Your task to perform on an android device: turn on showing notifications on the lock screen Image 0: 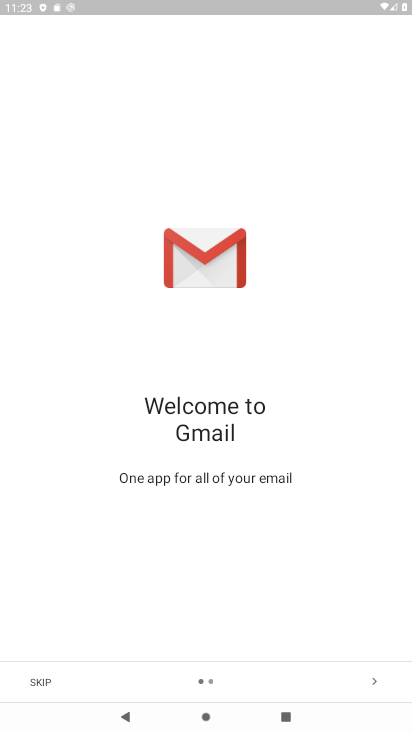
Step 0: press home button
Your task to perform on an android device: turn on showing notifications on the lock screen Image 1: 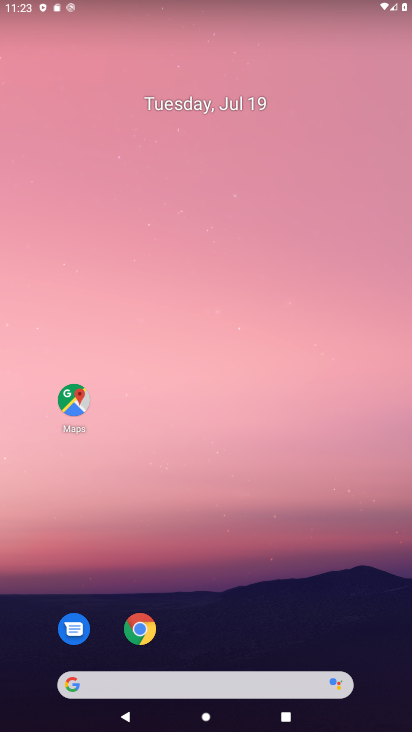
Step 1: drag from (361, 620) to (351, 123)
Your task to perform on an android device: turn on showing notifications on the lock screen Image 2: 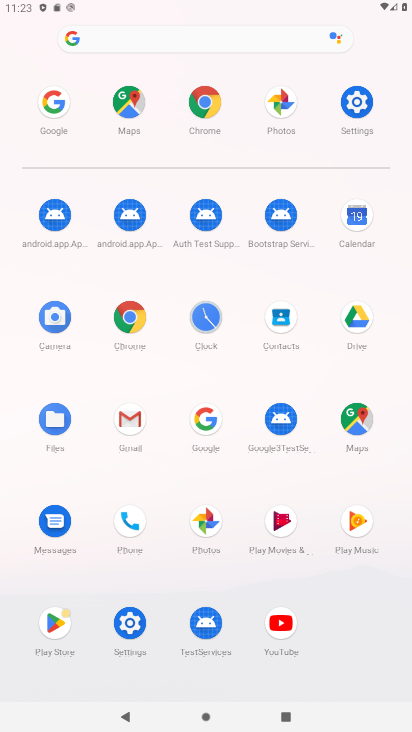
Step 2: click (364, 110)
Your task to perform on an android device: turn on showing notifications on the lock screen Image 3: 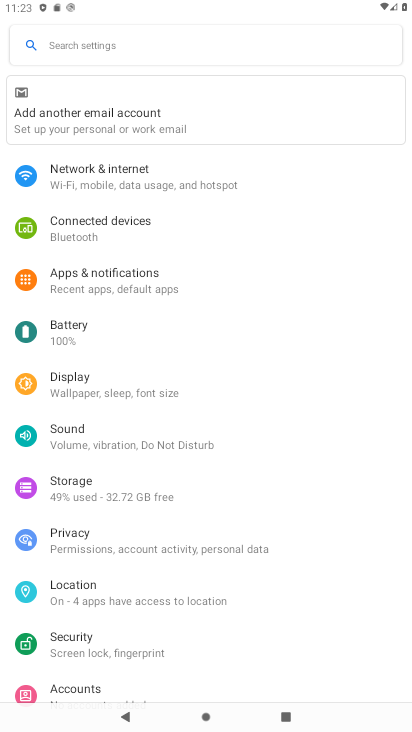
Step 3: drag from (310, 429) to (321, 326)
Your task to perform on an android device: turn on showing notifications on the lock screen Image 4: 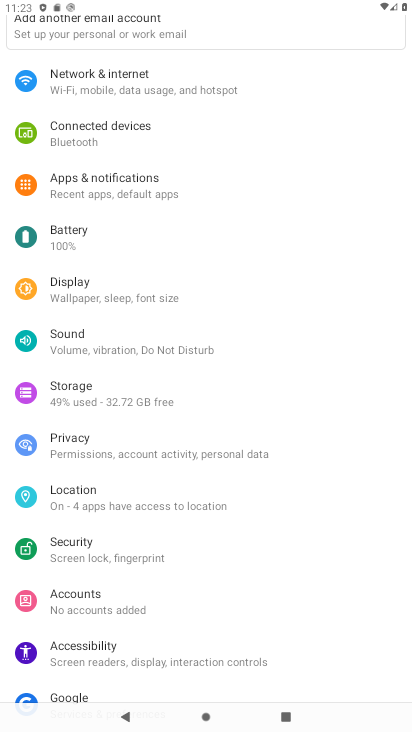
Step 4: drag from (338, 449) to (348, 335)
Your task to perform on an android device: turn on showing notifications on the lock screen Image 5: 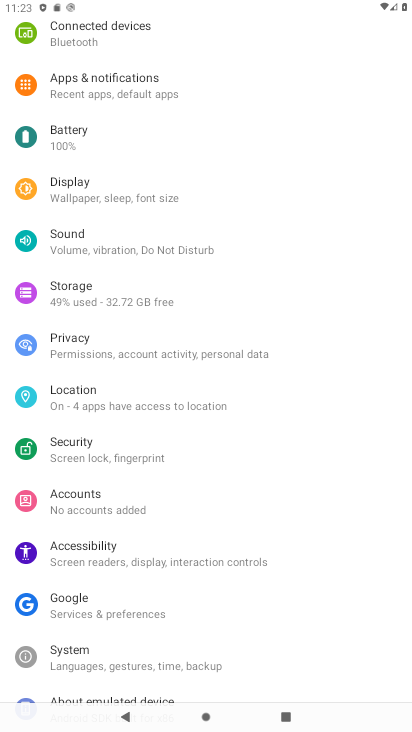
Step 5: drag from (357, 479) to (353, 325)
Your task to perform on an android device: turn on showing notifications on the lock screen Image 6: 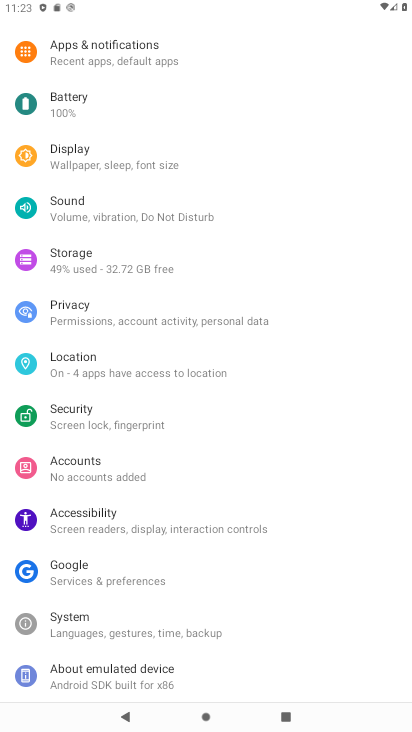
Step 6: drag from (354, 262) to (355, 364)
Your task to perform on an android device: turn on showing notifications on the lock screen Image 7: 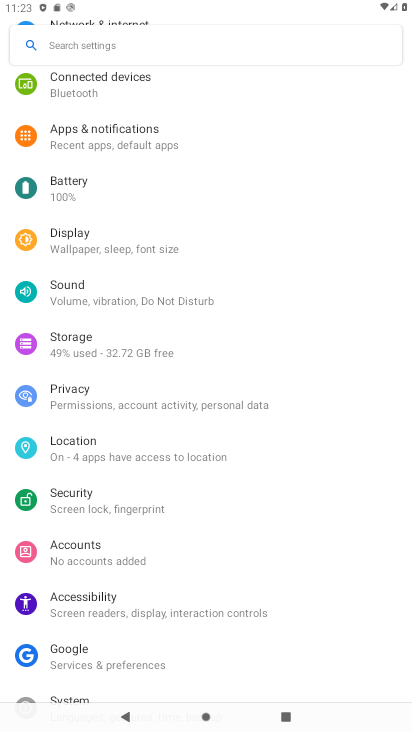
Step 7: drag from (353, 242) to (353, 357)
Your task to perform on an android device: turn on showing notifications on the lock screen Image 8: 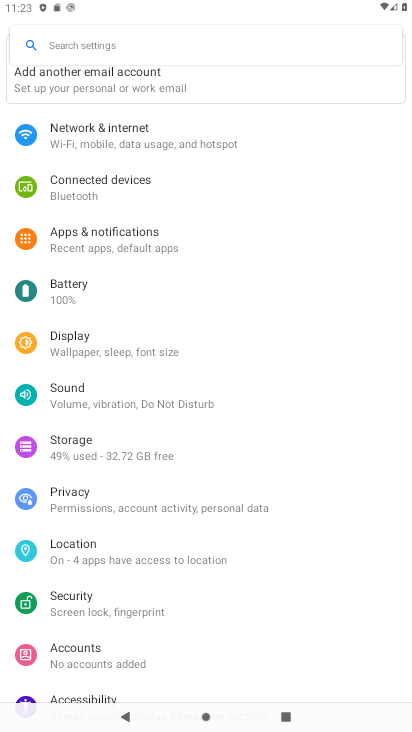
Step 8: click (184, 246)
Your task to perform on an android device: turn on showing notifications on the lock screen Image 9: 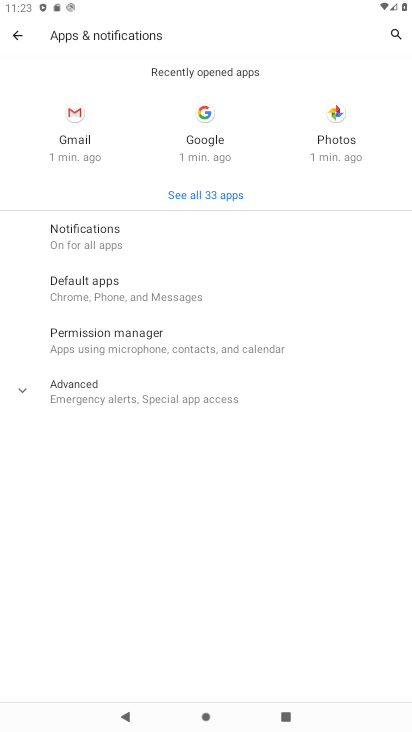
Step 9: click (194, 236)
Your task to perform on an android device: turn on showing notifications on the lock screen Image 10: 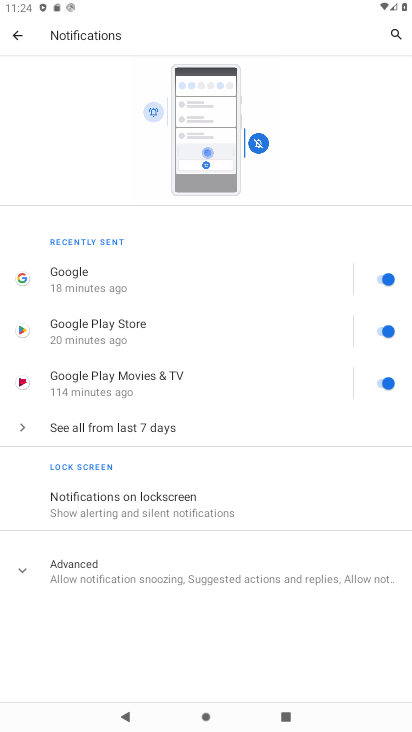
Step 10: drag from (289, 462) to (293, 362)
Your task to perform on an android device: turn on showing notifications on the lock screen Image 11: 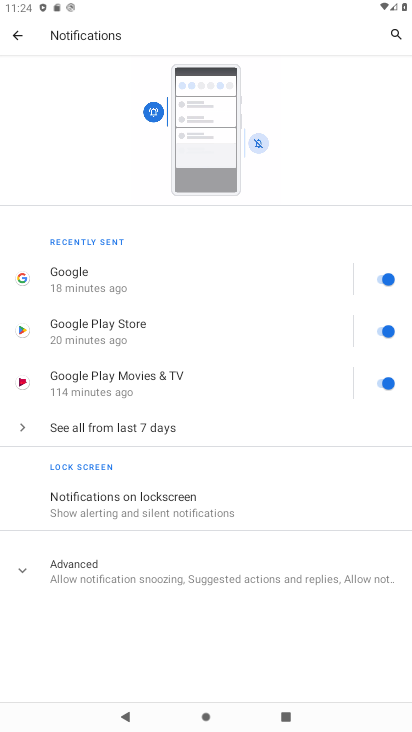
Step 11: click (296, 509)
Your task to perform on an android device: turn on showing notifications on the lock screen Image 12: 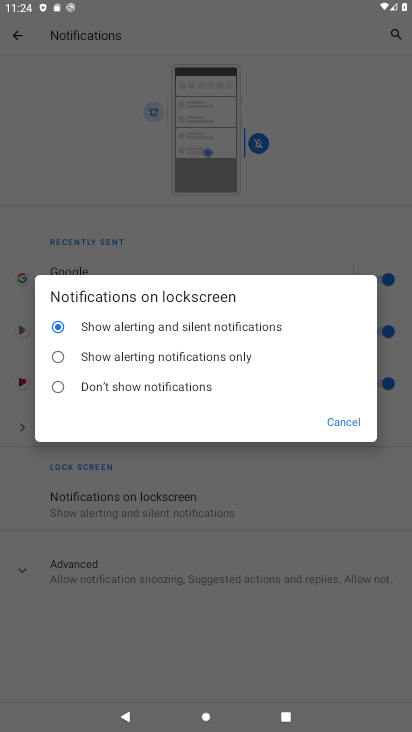
Step 12: task complete